Your task to perform on an android device: clear history in the chrome app Image 0: 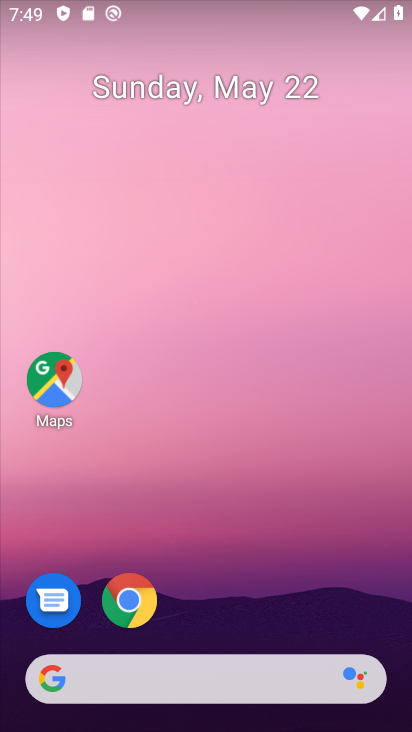
Step 0: click (128, 617)
Your task to perform on an android device: clear history in the chrome app Image 1: 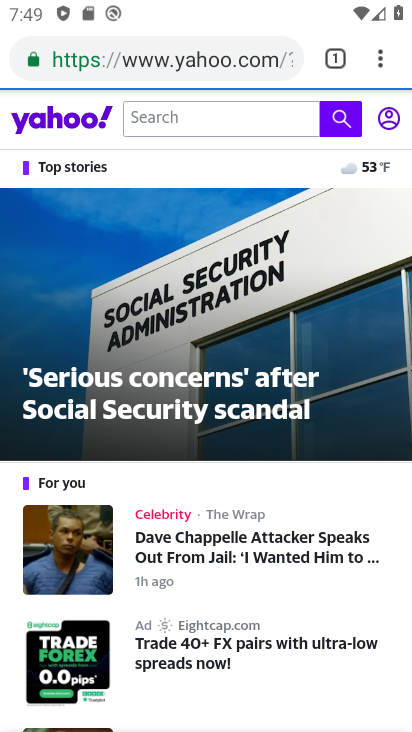
Step 1: click (379, 66)
Your task to perform on an android device: clear history in the chrome app Image 2: 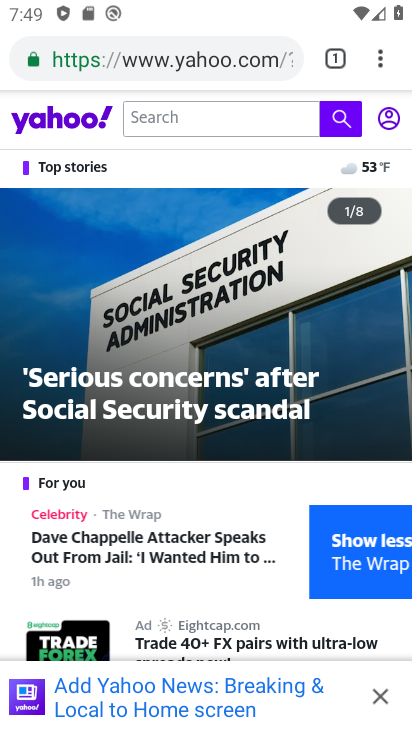
Step 2: click (380, 54)
Your task to perform on an android device: clear history in the chrome app Image 3: 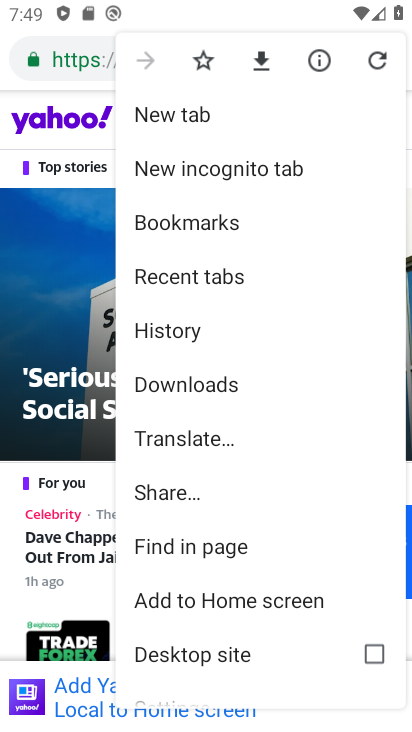
Step 3: click (186, 331)
Your task to perform on an android device: clear history in the chrome app Image 4: 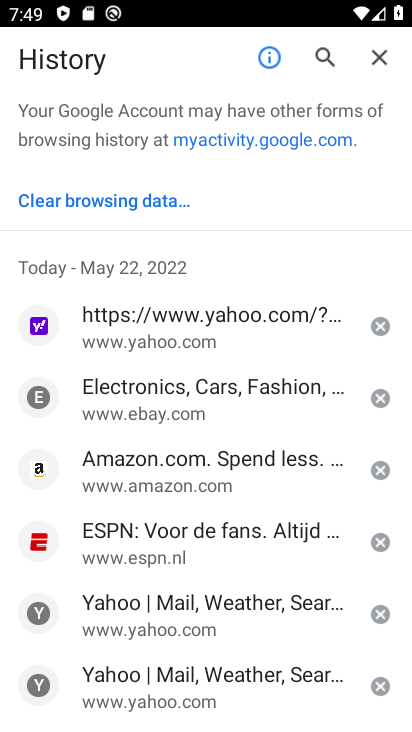
Step 4: click (160, 205)
Your task to perform on an android device: clear history in the chrome app Image 5: 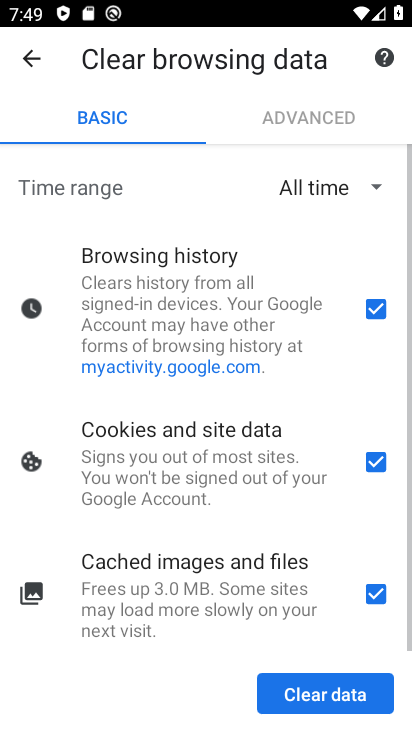
Step 5: click (322, 703)
Your task to perform on an android device: clear history in the chrome app Image 6: 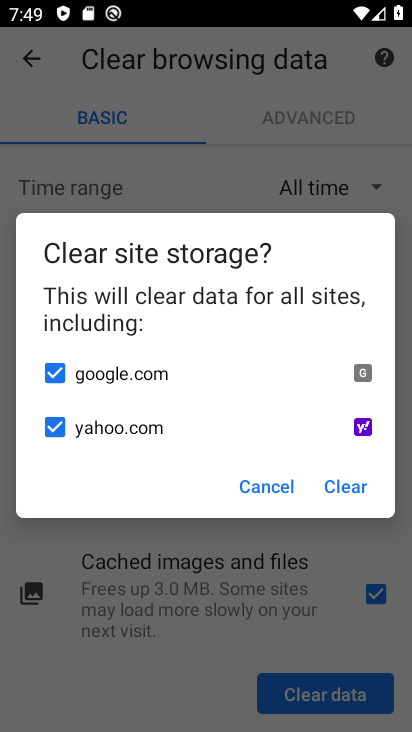
Step 6: click (349, 488)
Your task to perform on an android device: clear history in the chrome app Image 7: 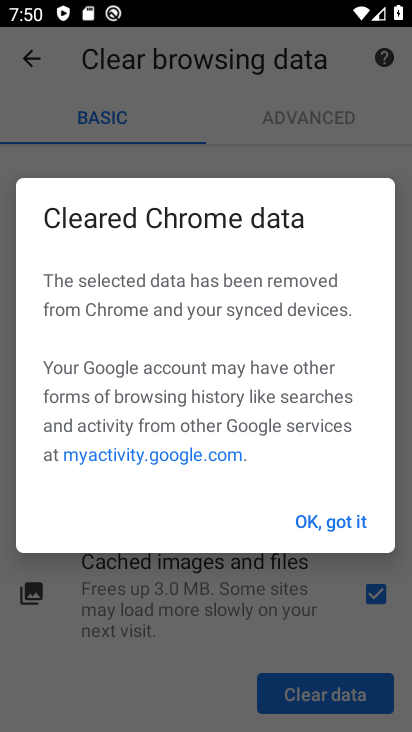
Step 7: click (353, 526)
Your task to perform on an android device: clear history in the chrome app Image 8: 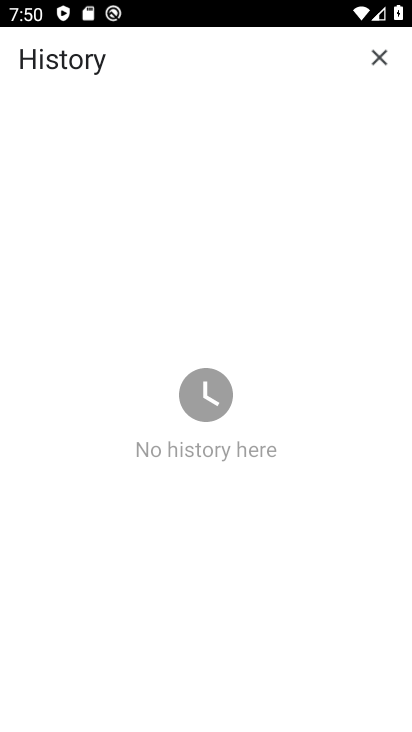
Step 8: task complete